Your task to perform on an android device: Go to wifi settings Image 0: 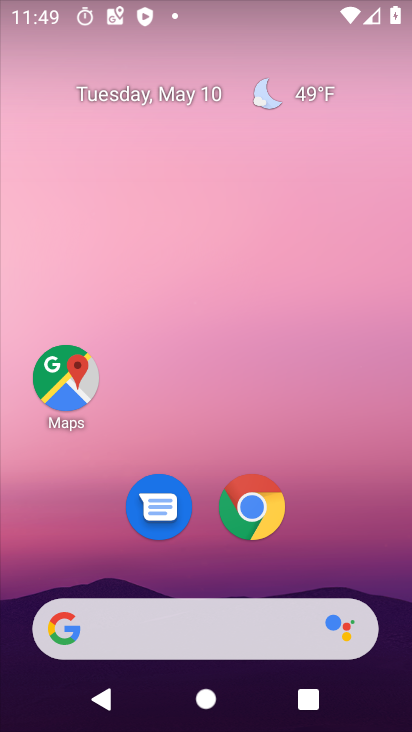
Step 0: drag from (206, 554) to (207, 119)
Your task to perform on an android device: Go to wifi settings Image 1: 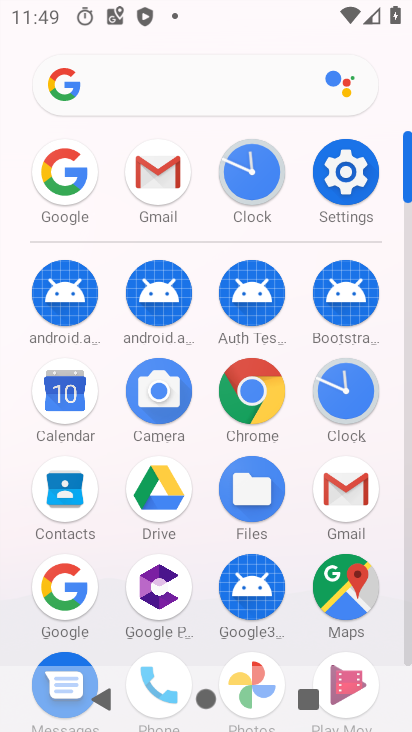
Step 1: click (340, 169)
Your task to perform on an android device: Go to wifi settings Image 2: 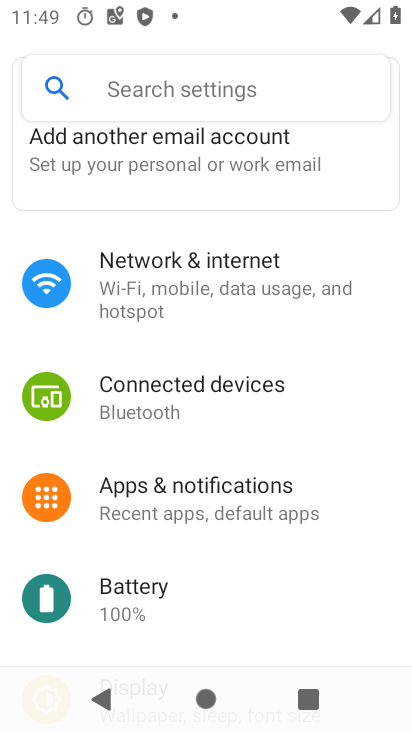
Step 2: click (189, 288)
Your task to perform on an android device: Go to wifi settings Image 3: 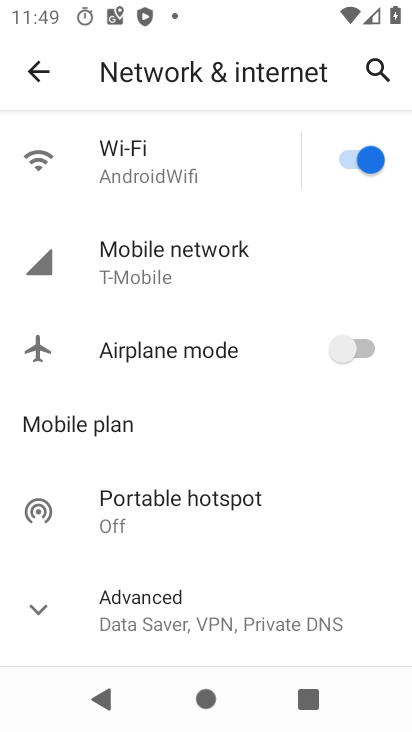
Step 3: click (173, 154)
Your task to perform on an android device: Go to wifi settings Image 4: 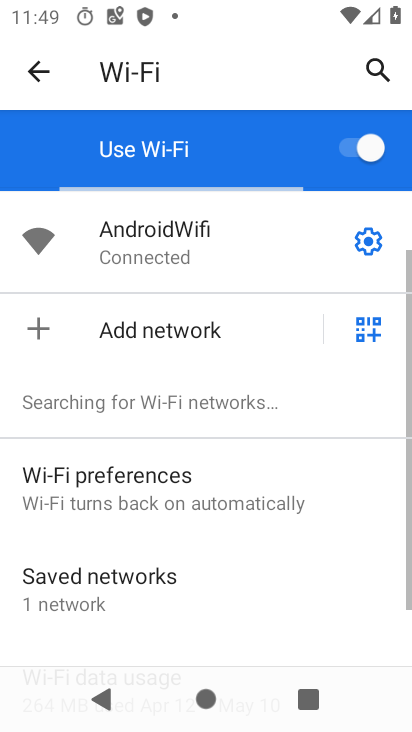
Step 4: click (359, 243)
Your task to perform on an android device: Go to wifi settings Image 5: 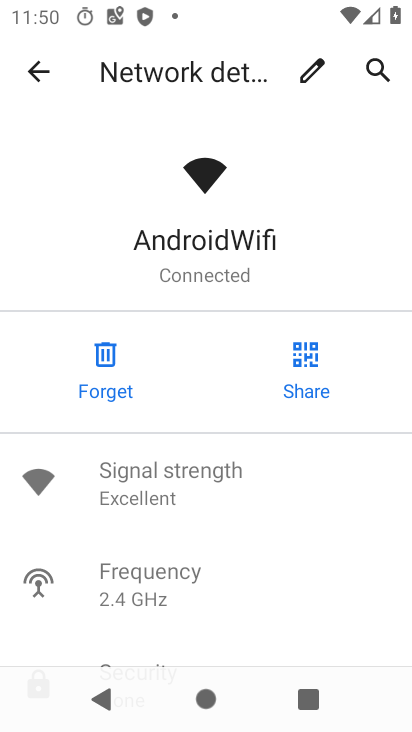
Step 5: task complete